Your task to perform on an android device: Add "corsair k70" to the cart on walmart, then select checkout. Image 0: 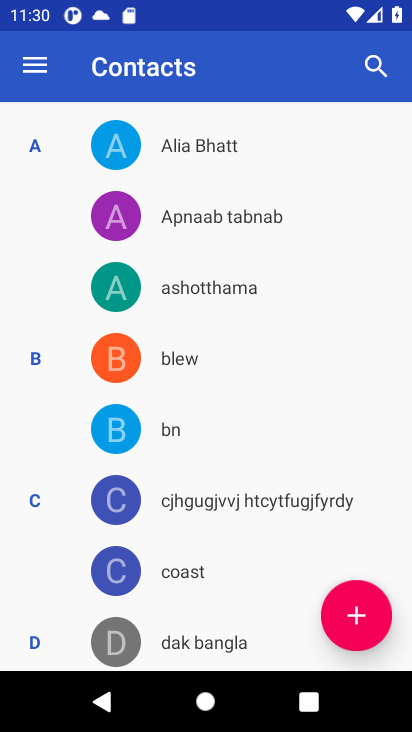
Step 0: press home button
Your task to perform on an android device: Add "corsair k70" to the cart on walmart, then select checkout. Image 1: 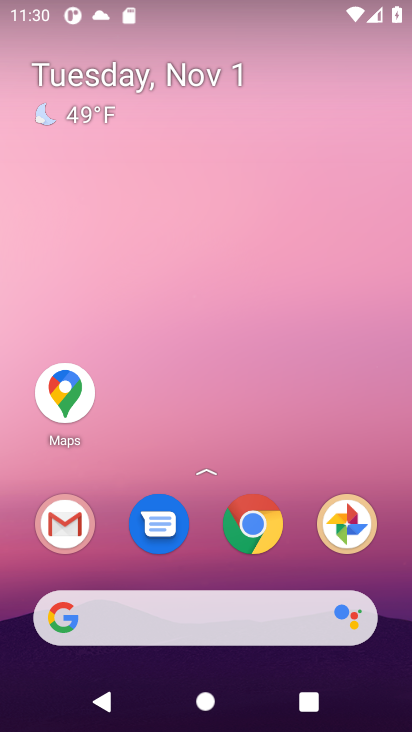
Step 1: press home button
Your task to perform on an android device: Add "corsair k70" to the cart on walmart, then select checkout. Image 2: 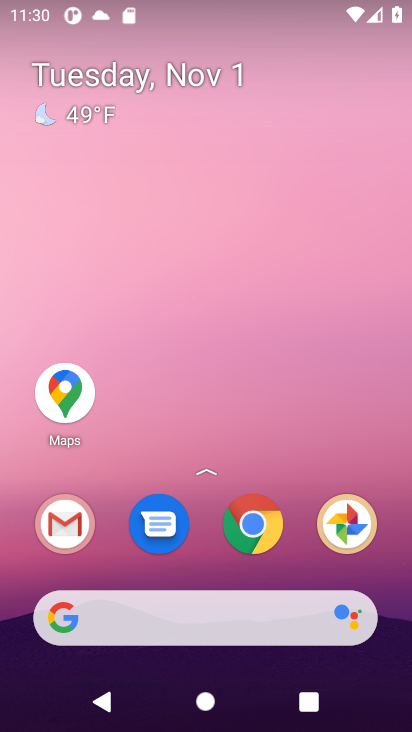
Step 2: click (110, 616)
Your task to perform on an android device: Add "corsair k70" to the cart on walmart, then select checkout. Image 3: 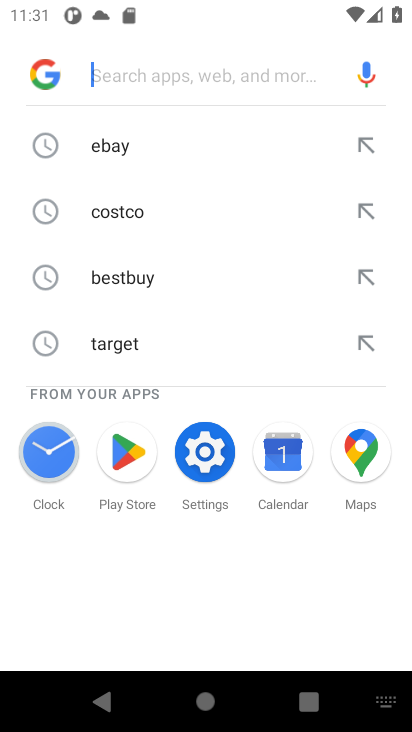
Step 3: type "walmart"
Your task to perform on an android device: Add "corsair k70" to the cart on walmart, then select checkout. Image 4: 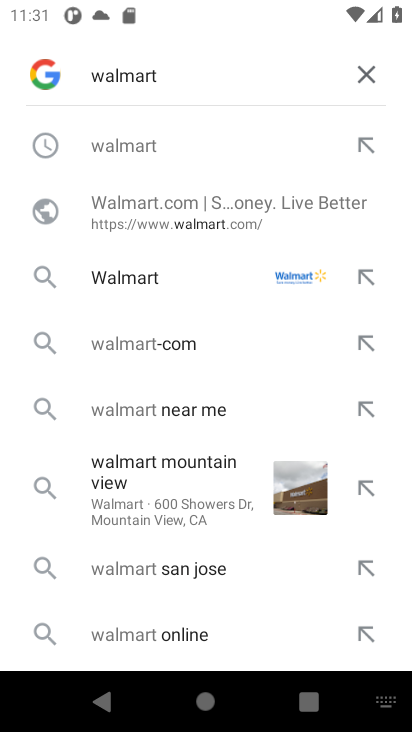
Step 4: press enter
Your task to perform on an android device: Add "corsair k70" to the cart on walmart, then select checkout. Image 5: 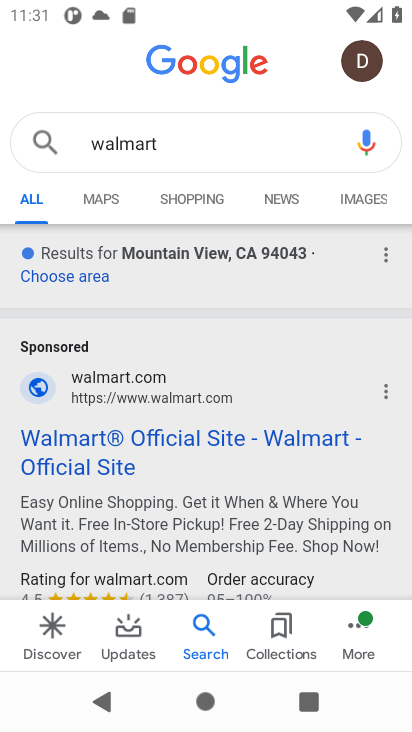
Step 5: click (112, 442)
Your task to perform on an android device: Add "corsair k70" to the cart on walmart, then select checkout. Image 6: 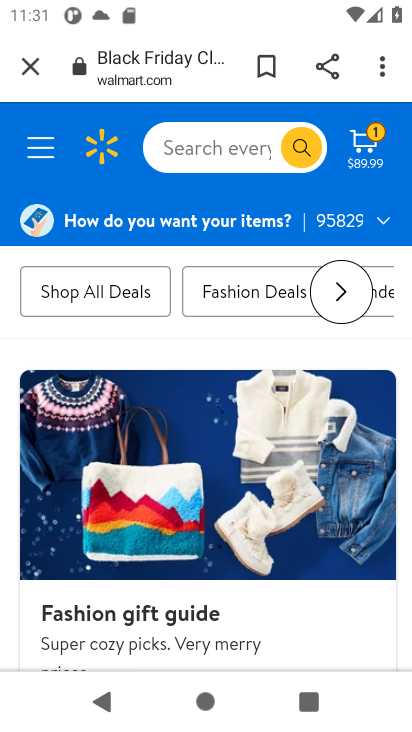
Step 6: click (187, 148)
Your task to perform on an android device: Add "corsair k70" to the cart on walmart, then select checkout. Image 7: 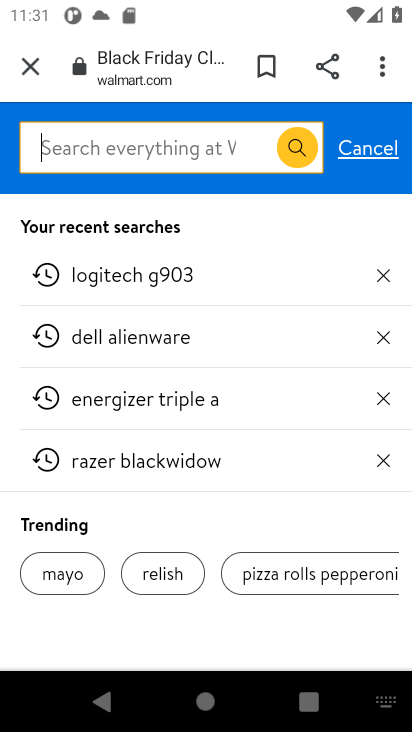
Step 7: type "corsair k70"
Your task to perform on an android device: Add "corsair k70" to the cart on walmart, then select checkout. Image 8: 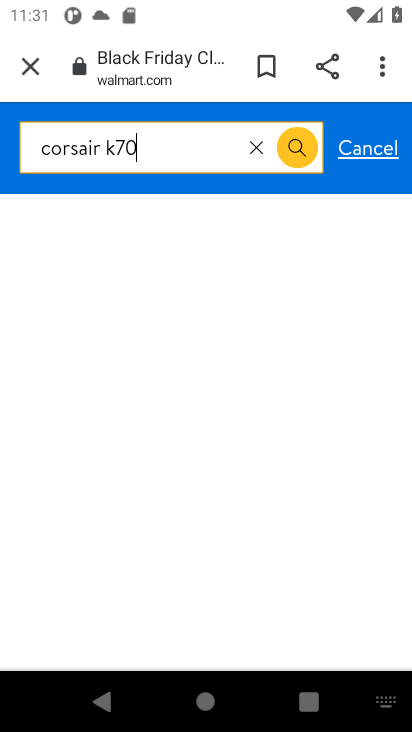
Step 8: press enter
Your task to perform on an android device: Add "corsair k70" to the cart on walmart, then select checkout. Image 9: 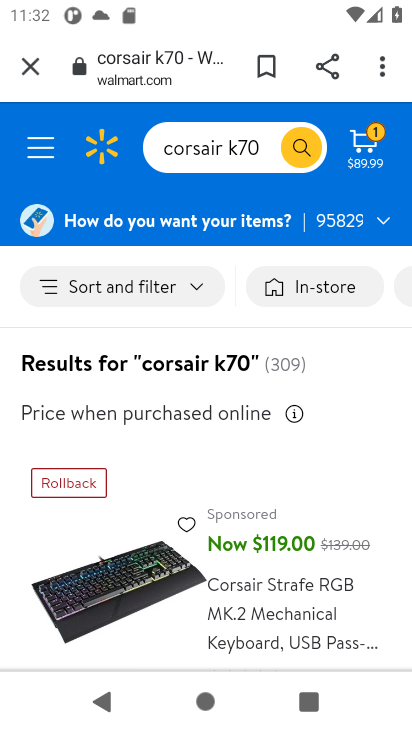
Step 9: drag from (298, 614) to (312, 436)
Your task to perform on an android device: Add "corsair k70" to the cart on walmart, then select checkout. Image 10: 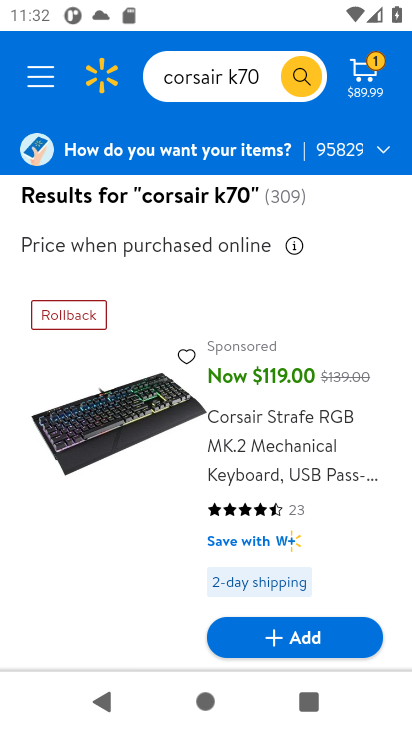
Step 10: drag from (258, 537) to (273, 358)
Your task to perform on an android device: Add "corsair k70" to the cart on walmart, then select checkout. Image 11: 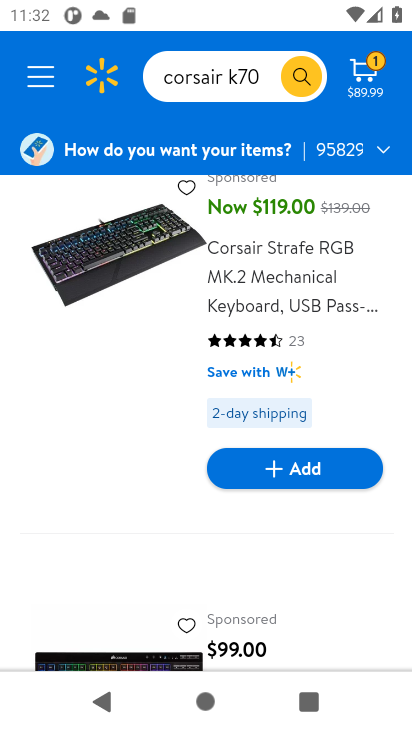
Step 11: drag from (274, 603) to (290, 361)
Your task to perform on an android device: Add "corsair k70" to the cart on walmart, then select checkout. Image 12: 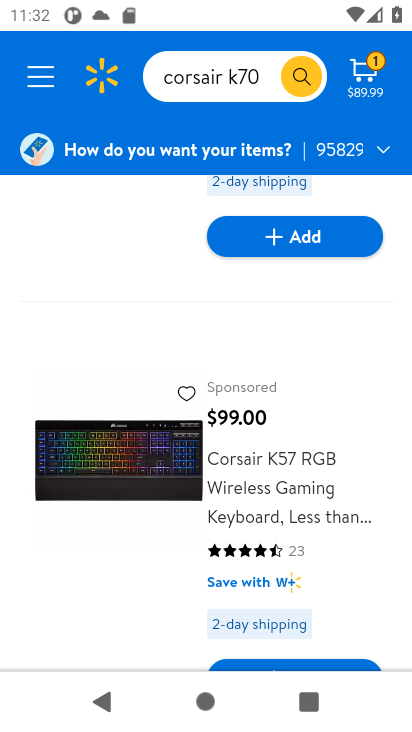
Step 12: drag from (283, 561) to (296, 378)
Your task to perform on an android device: Add "corsair k70" to the cart on walmart, then select checkout. Image 13: 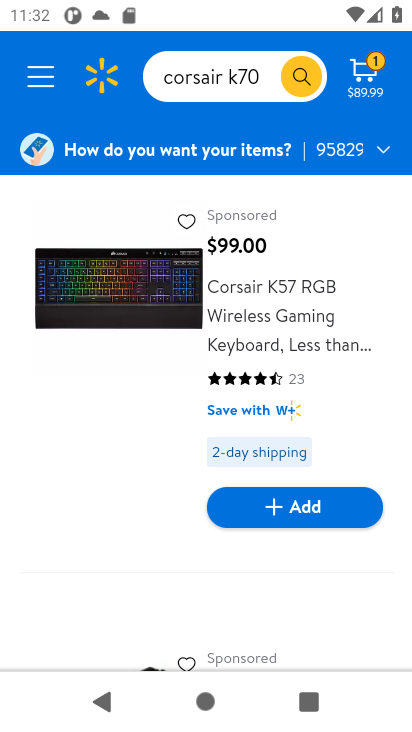
Step 13: drag from (298, 250) to (308, 552)
Your task to perform on an android device: Add "corsair k70" to the cart on walmart, then select checkout. Image 14: 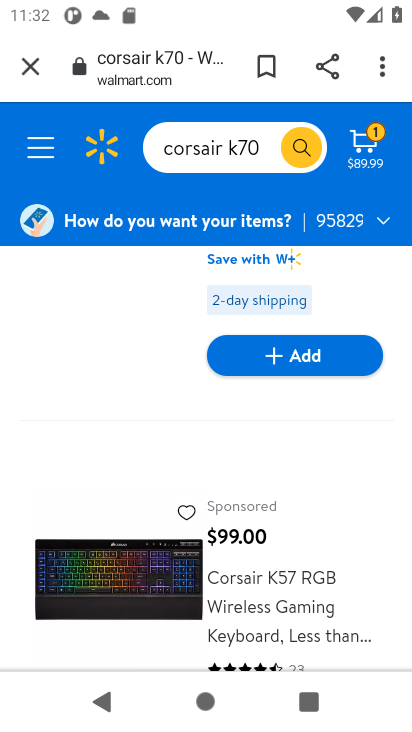
Step 14: drag from (348, 261) to (321, 532)
Your task to perform on an android device: Add "corsair k70" to the cart on walmart, then select checkout. Image 15: 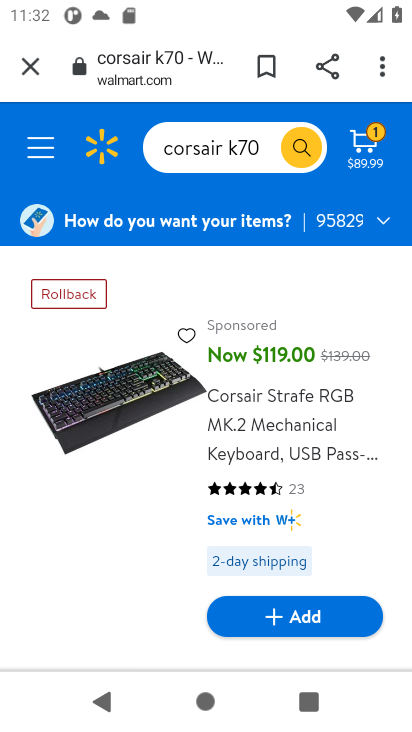
Step 15: drag from (288, 489) to (309, 262)
Your task to perform on an android device: Add "corsair k70" to the cart on walmart, then select checkout. Image 16: 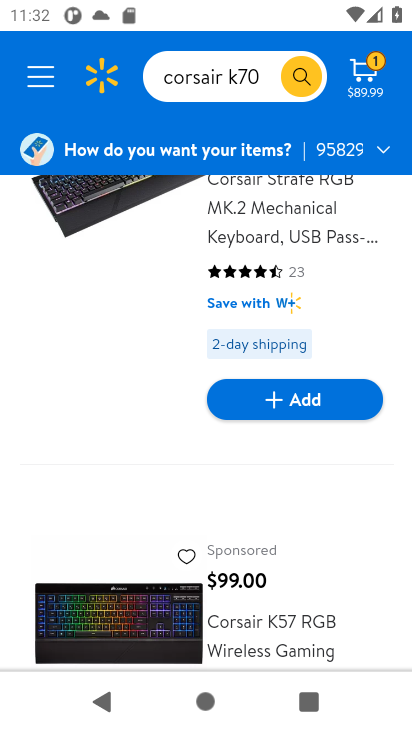
Step 16: drag from (289, 589) to (281, 294)
Your task to perform on an android device: Add "corsair k70" to the cart on walmart, then select checkout. Image 17: 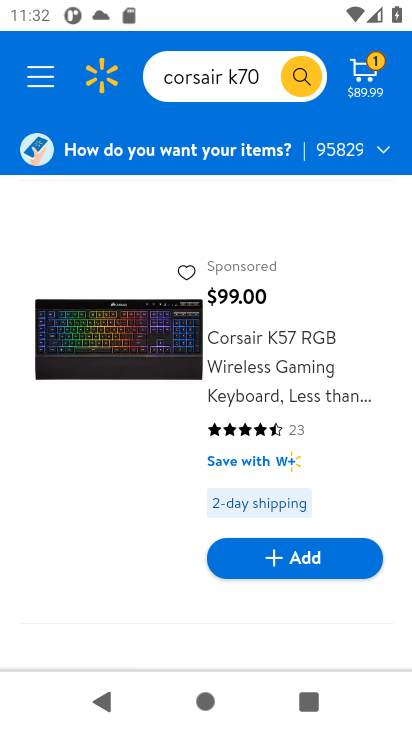
Step 17: drag from (202, 515) to (225, 290)
Your task to perform on an android device: Add "corsair k70" to the cart on walmart, then select checkout. Image 18: 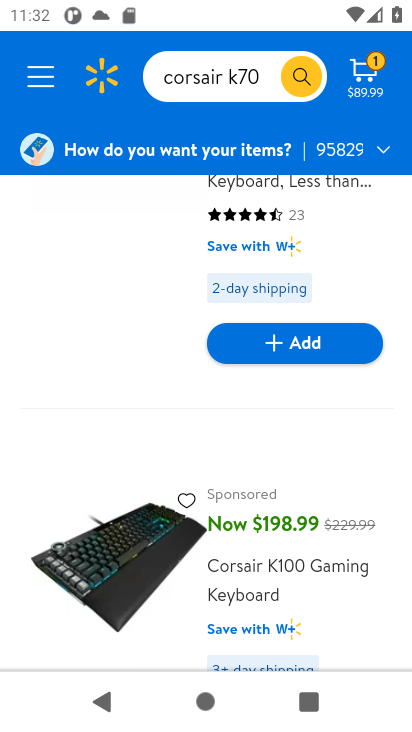
Step 18: drag from (270, 524) to (290, 241)
Your task to perform on an android device: Add "corsair k70" to the cart on walmart, then select checkout. Image 19: 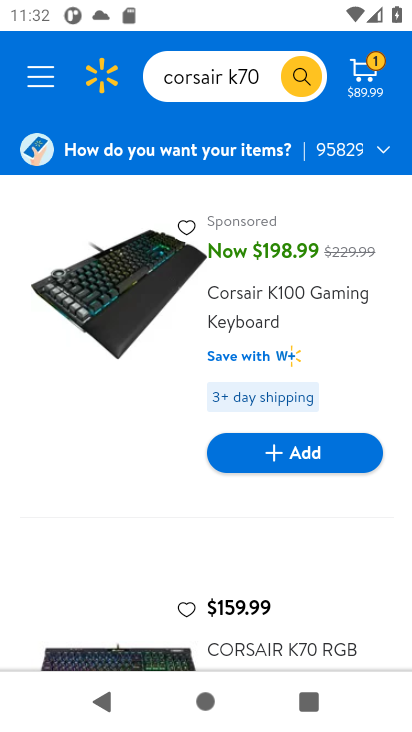
Step 19: drag from (290, 579) to (273, 394)
Your task to perform on an android device: Add "corsair k70" to the cart on walmart, then select checkout. Image 20: 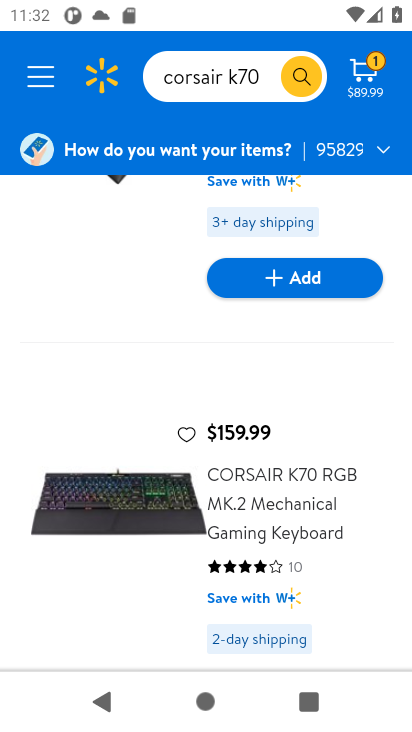
Step 20: drag from (275, 568) to (283, 374)
Your task to perform on an android device: Add "corsair k70" to the cart on walmart, then select checkout. Image 21: 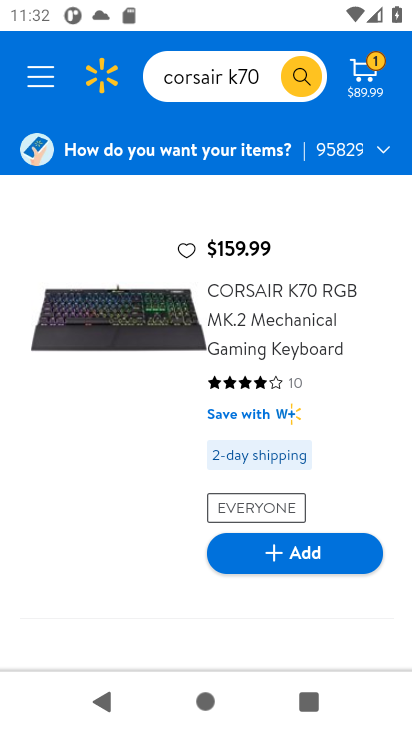
Step 21: click (291, 558)
Your task to perform on an android device: Add "corsair k70" to the cart on walmart, then select checkout. Image 22: 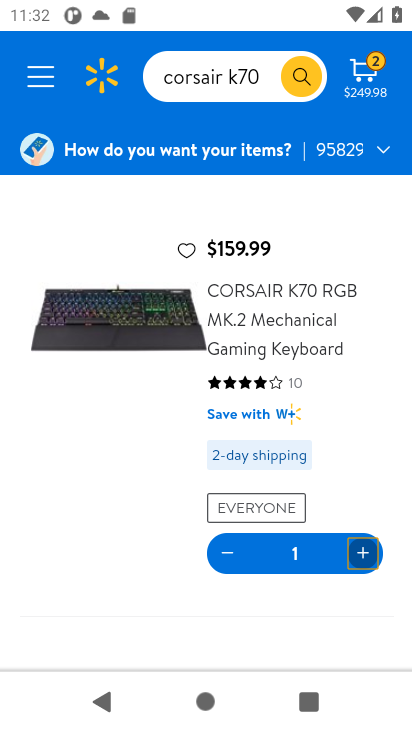
Step 22: click (368, 65)
Your task to perform on an android device: Add "corsair k70" to the cart on walmart, then select checkout. Image 23: 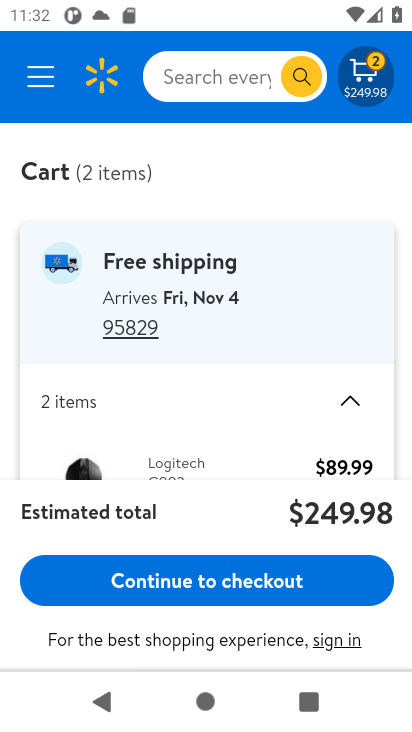
Step 23: click (166, 578)
Your task to perform on an android device: Add "corsair k70" to the cart on walmart, then select checkout. Image 24: 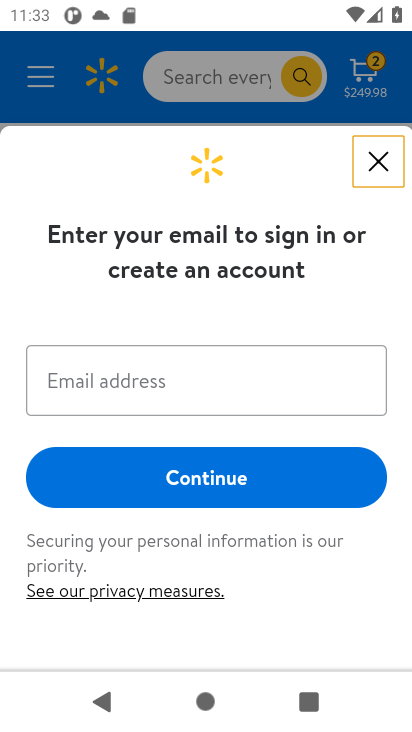
Step 24: task complete